Your task to perform on an android device: Show me recent news Image 0: 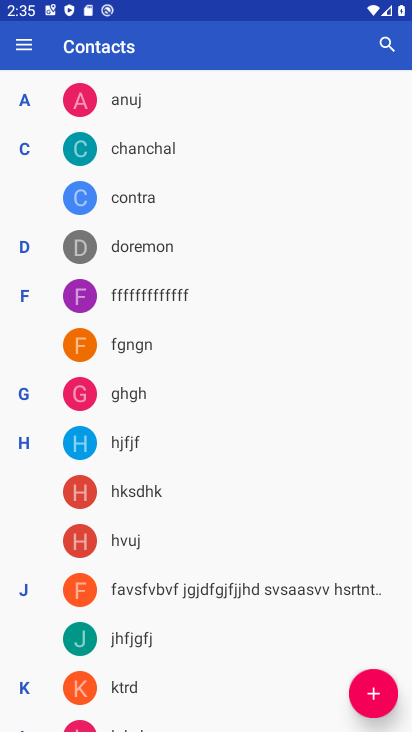
Step 0: press home button
Your task to perform on an android device: Show me recent news Image 1: 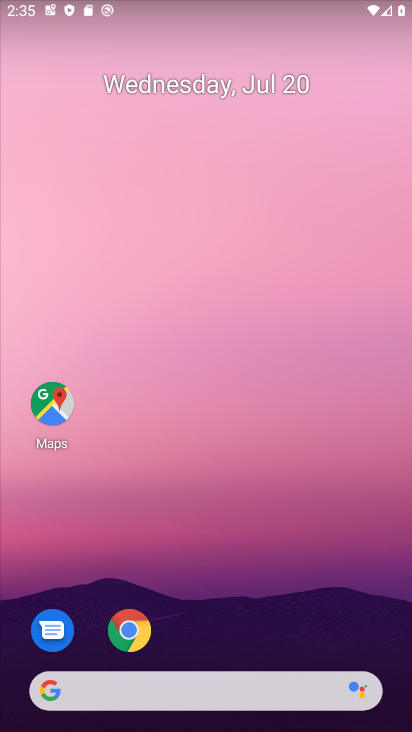
Step 1: task complete